Your task to perform on an android device: turn off location Image 0: 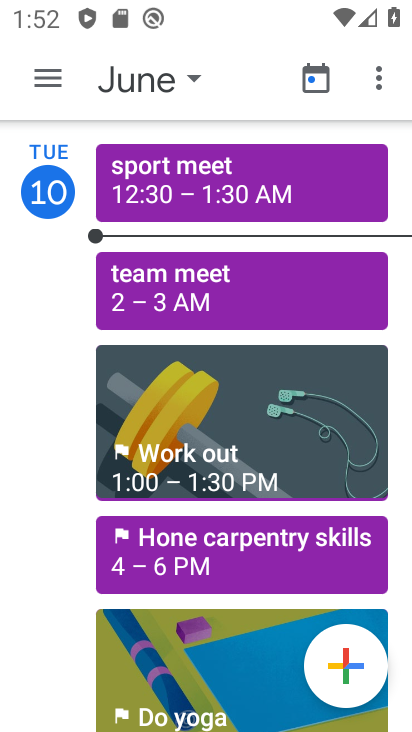
Step 0: press back button
Your task to perform on an android device: turn off location Image 1: 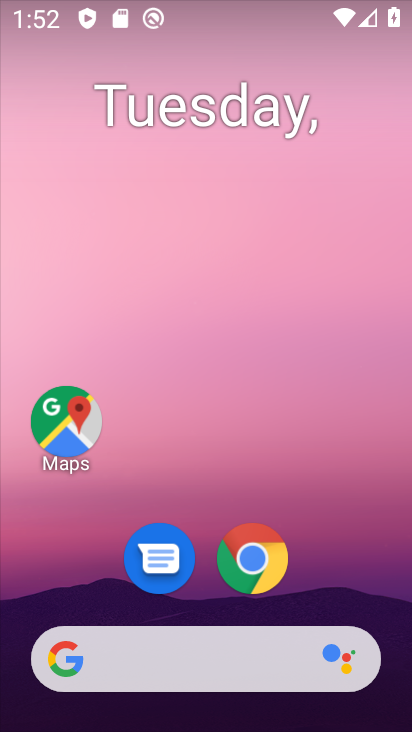
Step 1: drag from (128, 585) to (302, 74)
Your task to perform on an android device: turn off location Image 2: 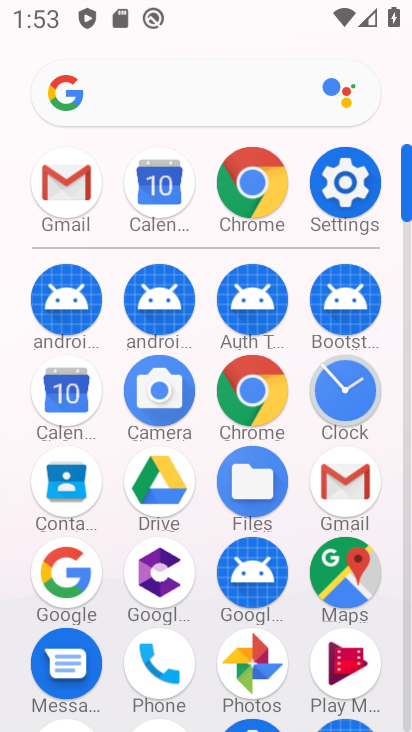
Step 2: click (354, 174)
Your task to perform on an android device: turn off location Image 3: 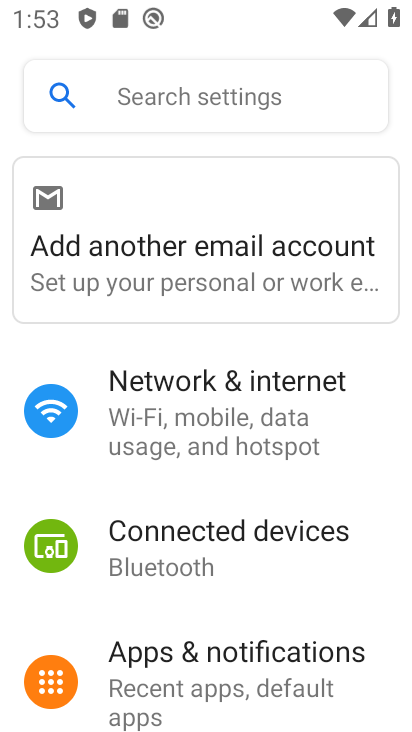
Step 3: drag from (197, 650) to (305, 150)
Your task to perform on an android device: turn off location Image 4: 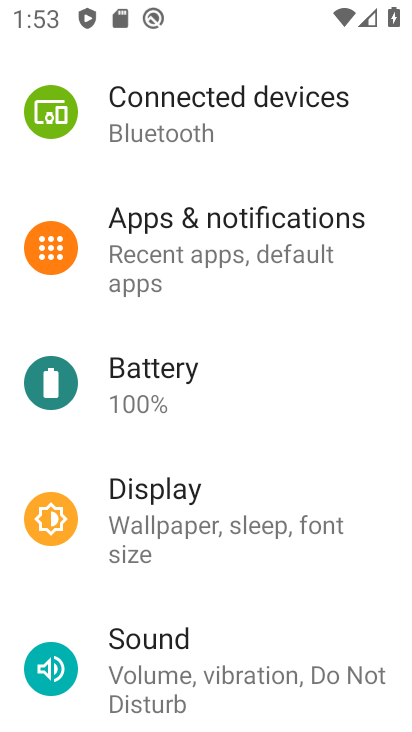
Step 4: drag from (236, 646) to (335, 134)
Your task to perform on an android device: turn off location Image 5: 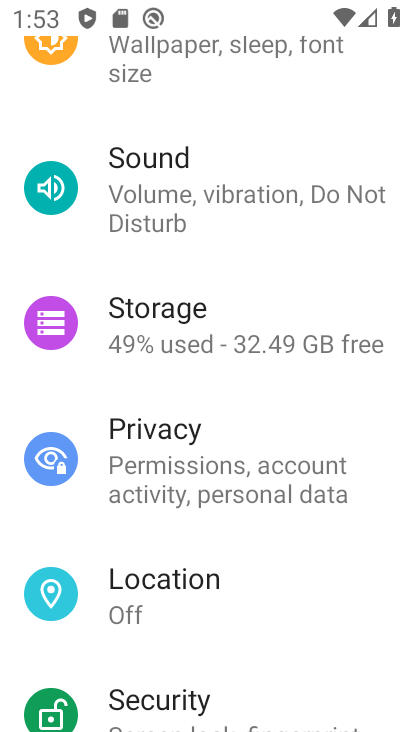
Step 5: click (146, 585)
Your task to perform on an android device: turn off location Image 6: 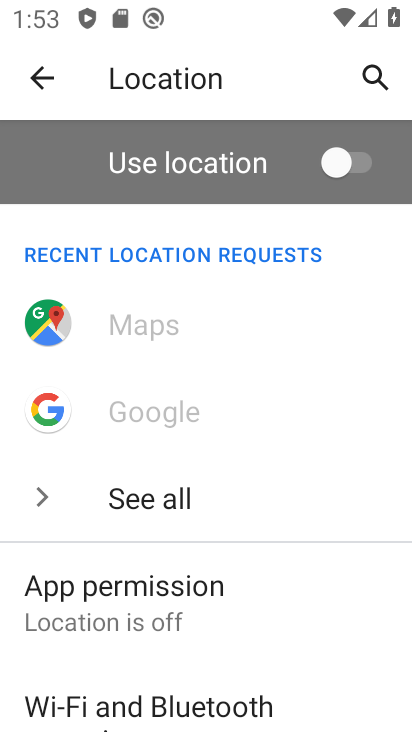
Step 6: task complete